Your task to perform on an android device: Open the stopwatch Image 0: 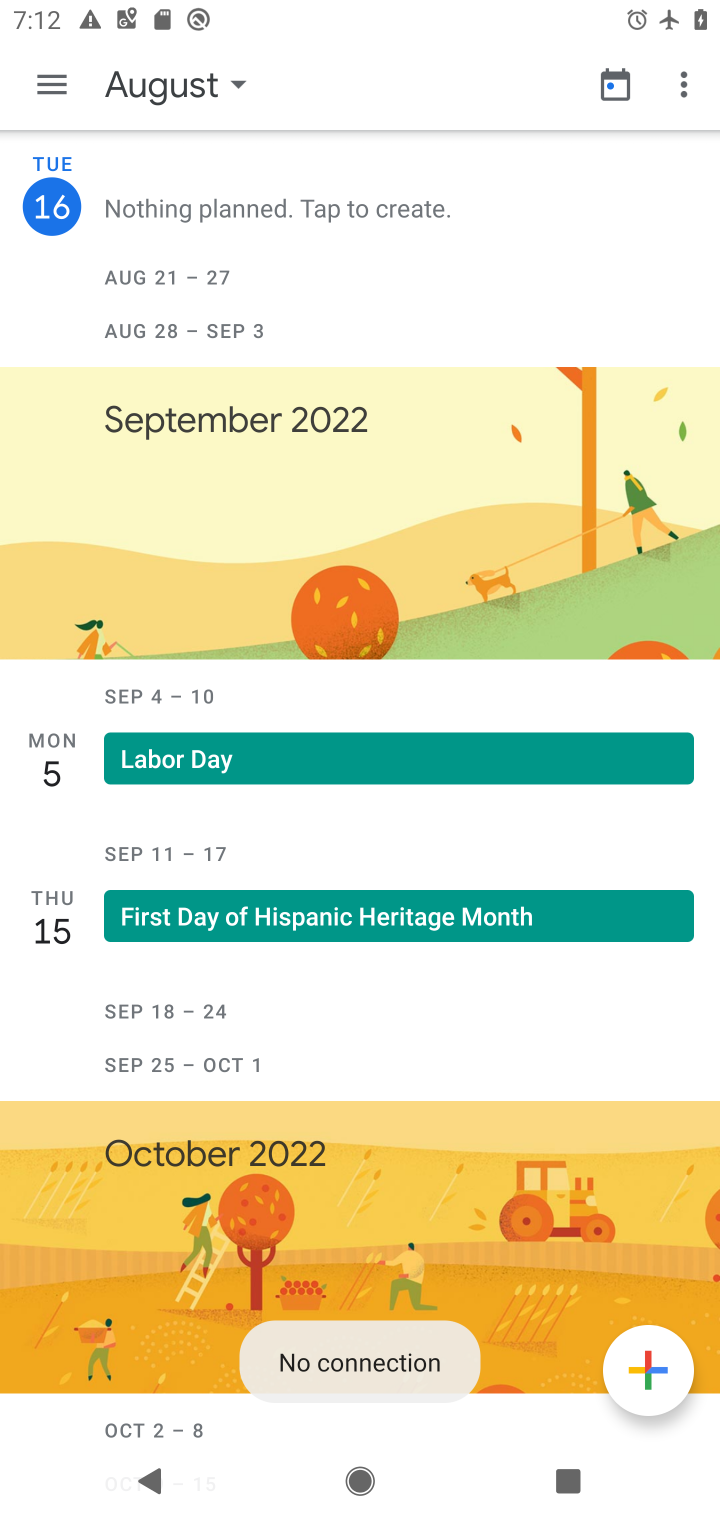
Step 0: press home button
Your task to perform on an android device: Open the stopwatch Image 1: 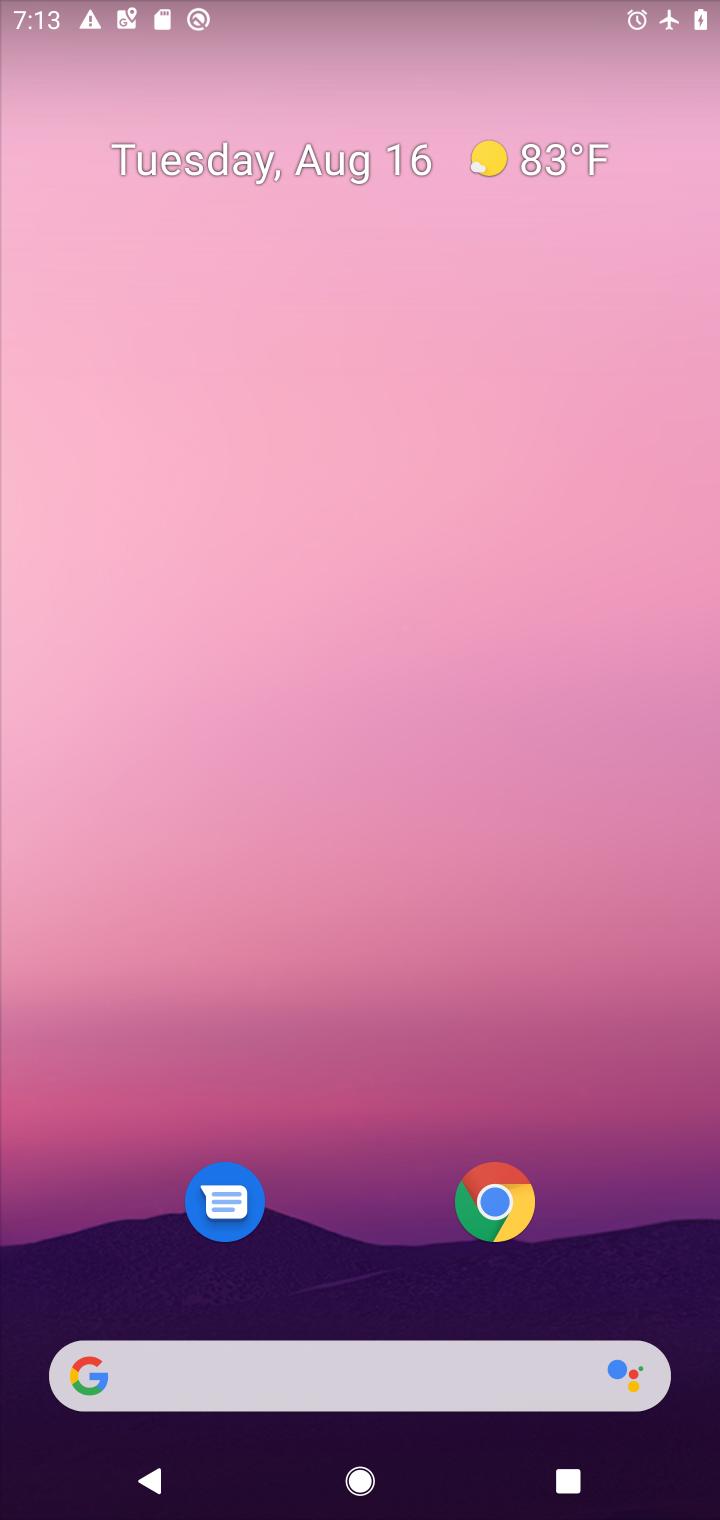
Step 1: drag from (568, 734) to (369, 16)
Your task to perform on an android device: Open the stopwatch Image 2: 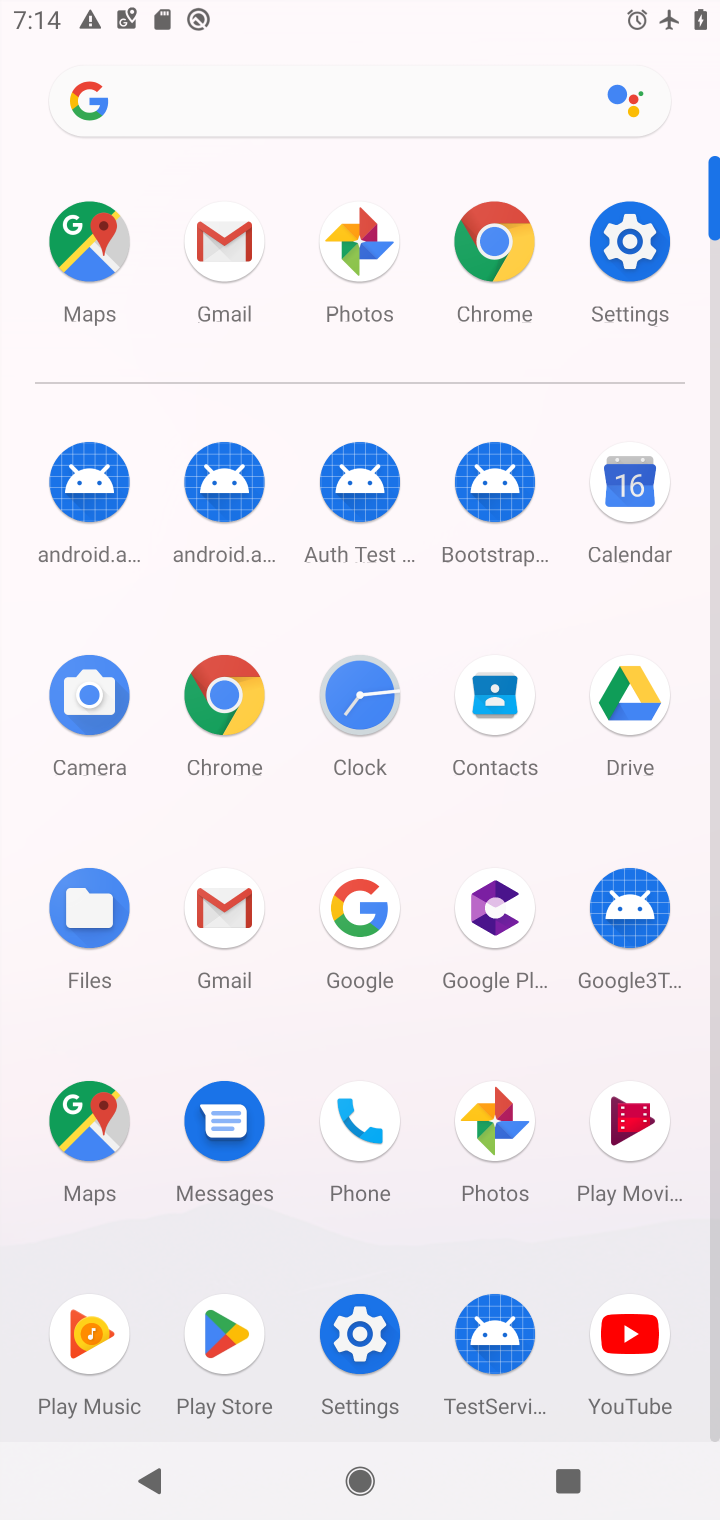
Step 2: click (354, 686)
Your task to perform on an android device: Open the stopwatch Image 3: 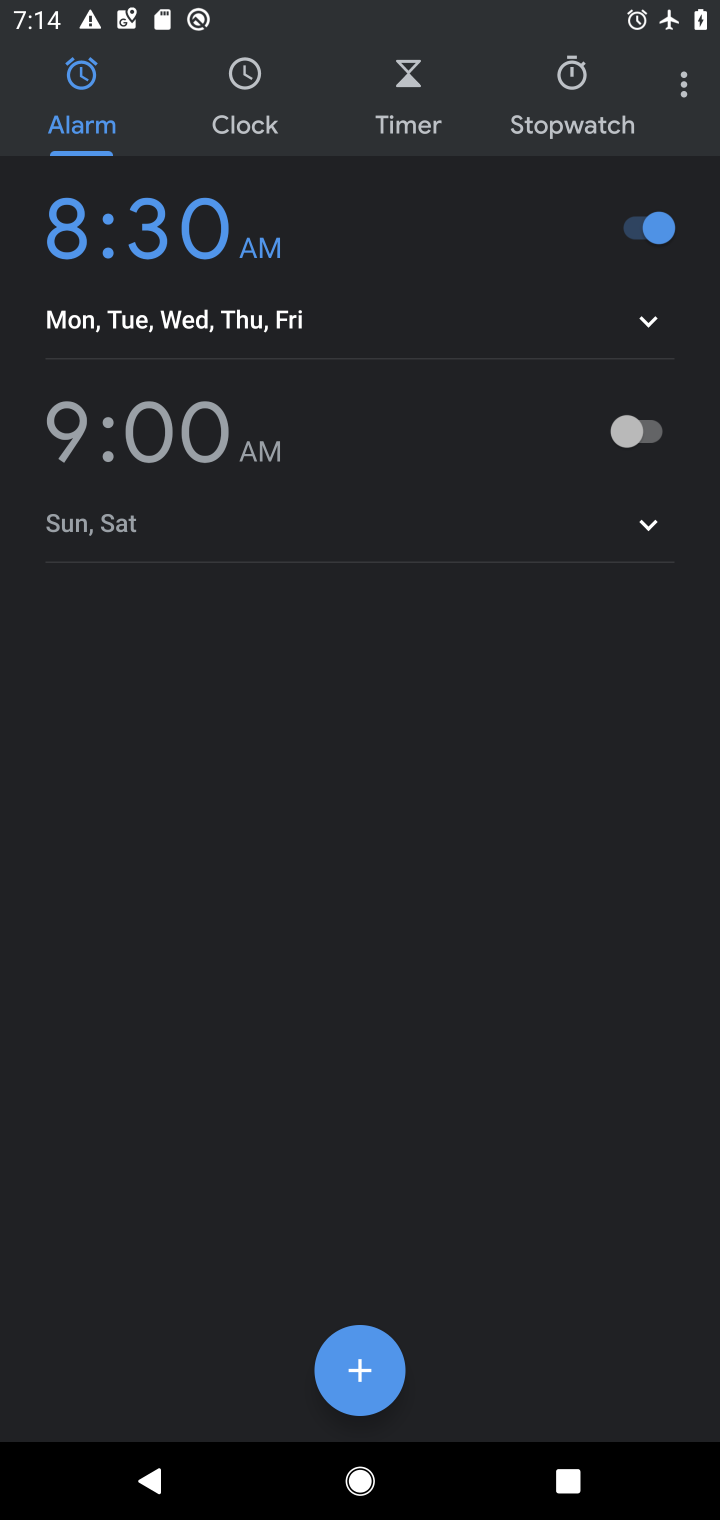
Step 3: click (575, 108)
Your task to perform on an android device: Open the stopwatch Image 4: 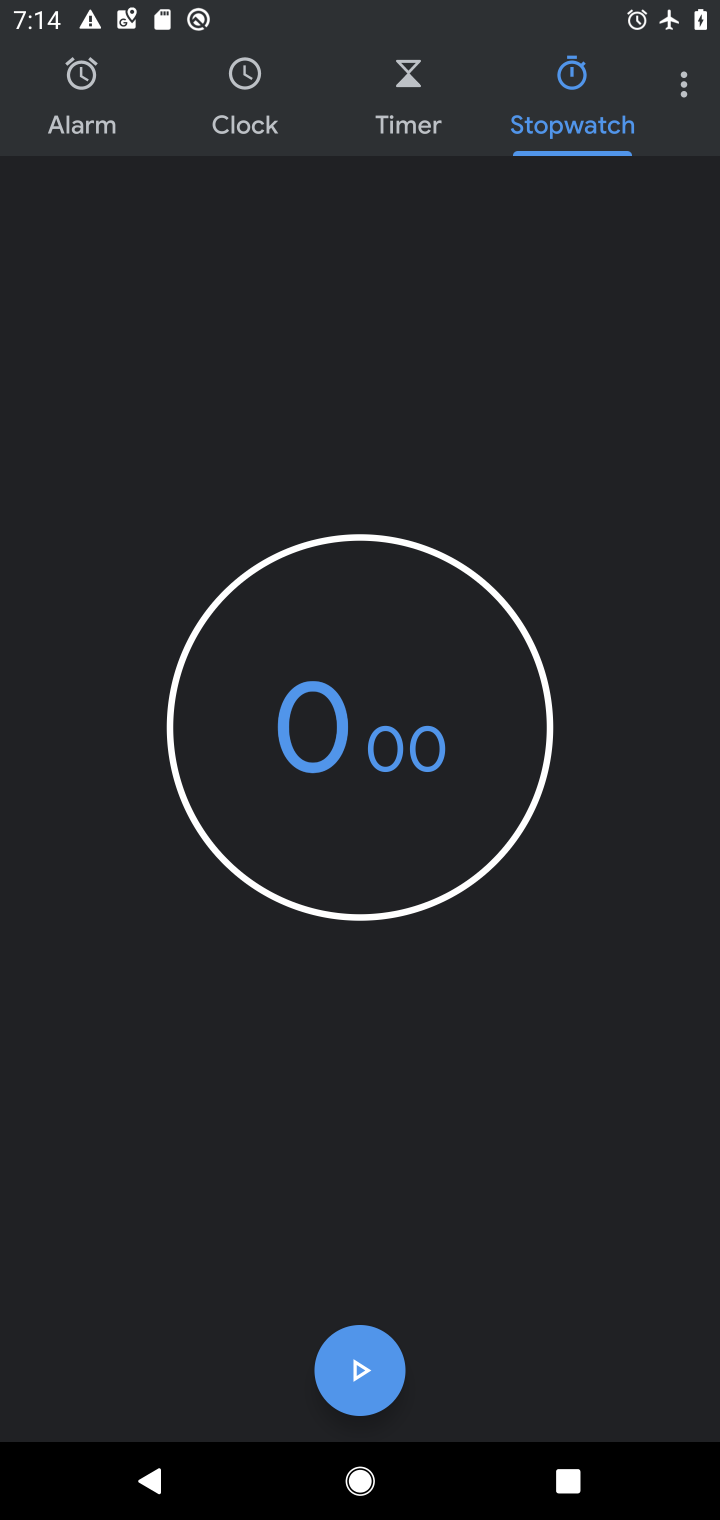
Step 4: task complete